Your task to perform on an android device: toggle javascript in the chrome app Image 0: 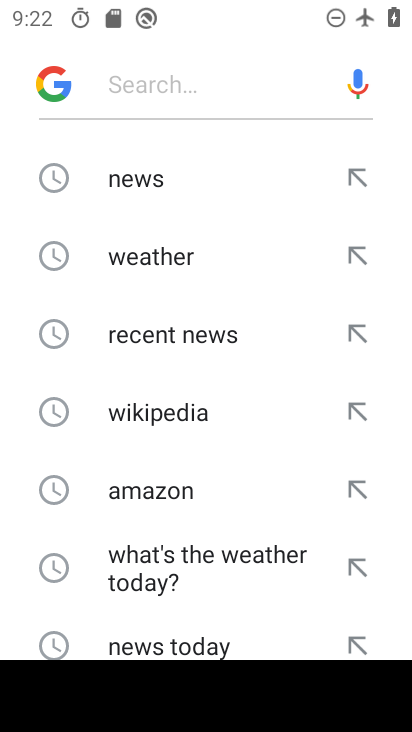
Step 0: press home button
Your task to perform on an android device: toggle javascript in the chrome app Image 1: 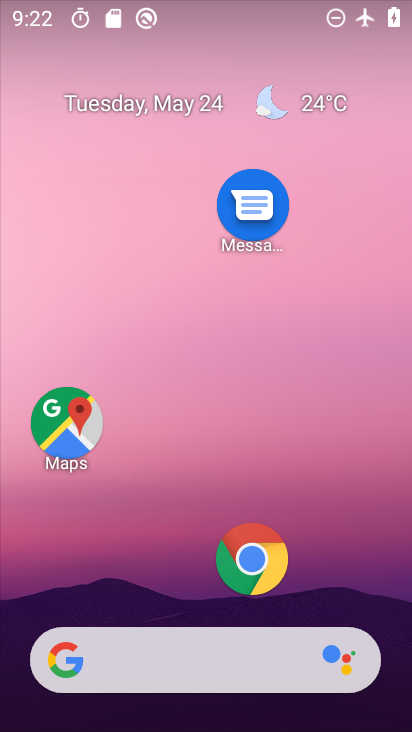
Step 1: click (265, 570)
Your task to perform on an android device: toggle javascript in the chrome app Image 2: 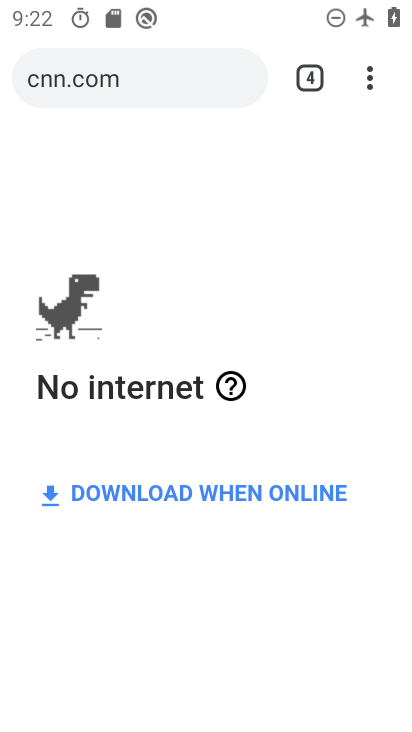
Step 2: drag from (372, 80) to (119, 630)
Your task to perform on an android device: toggle javascript in the chrome app Image 3: 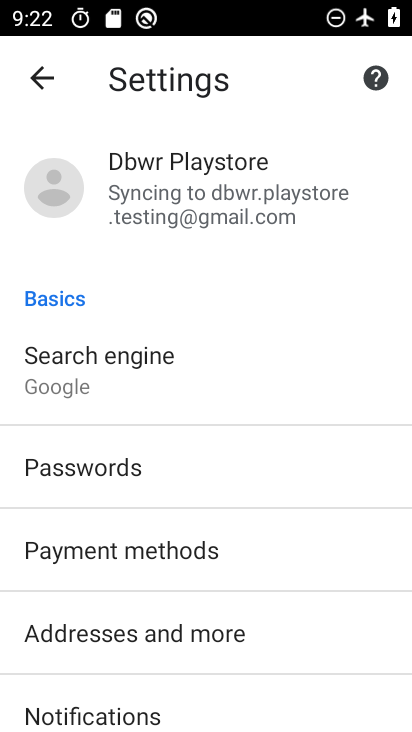
Step 3: drag from (176, 636) to (218, 410)
Your task to perform on an android device: toggle javascript in the chrome app Image 4: 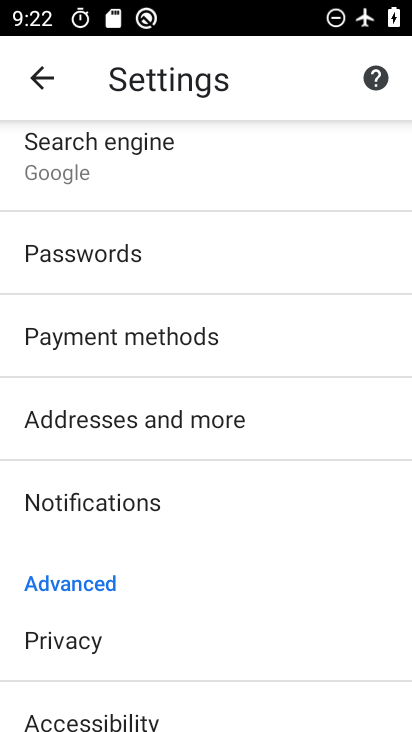
Step 4: drag from (193, 661) to (220, 409)
Your task to perform on an android device: toggle javascript in the chrome app Image 5: 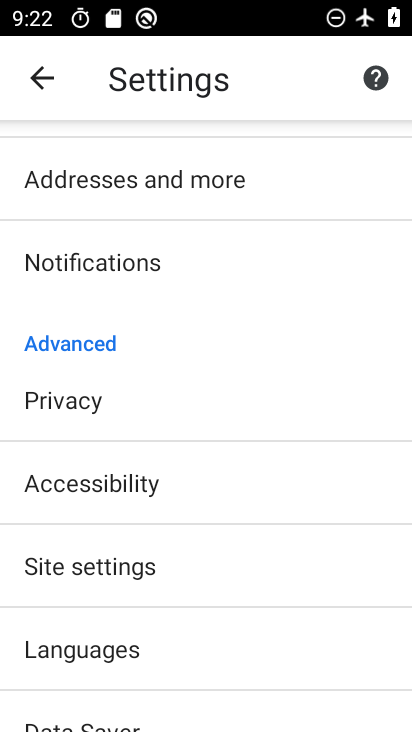
Step 5: drag from (188, 647) to (233, 442)
Your task to perform on an android device: toggle javascript in the chrome app Image 6: 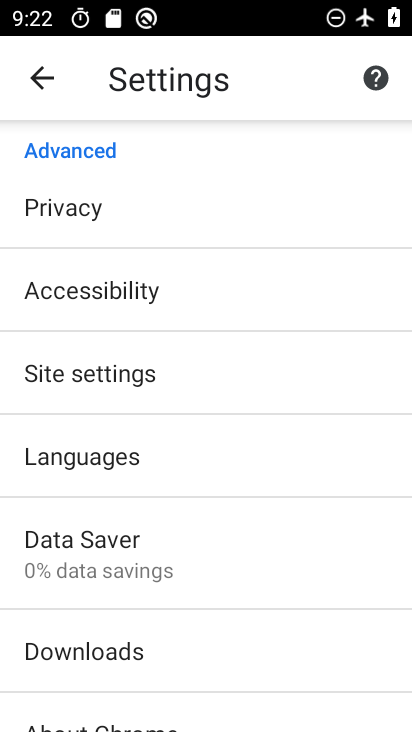
Step 6: click (189, 547)
Your task to perform on an android device: toggle javascript in the chrome app Image 7: 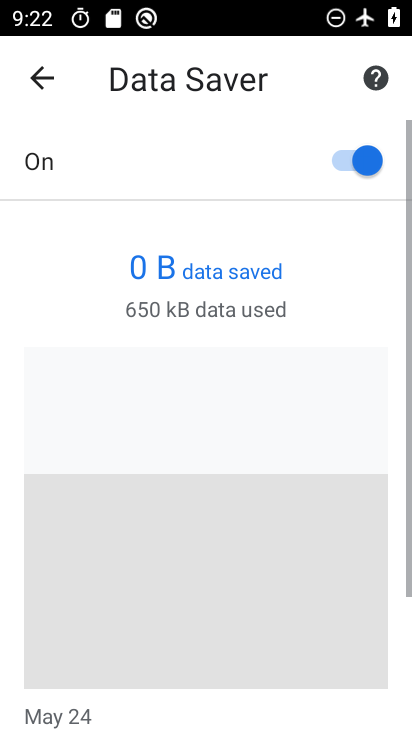
Step 7: press back button
Your task to perform on an android device: toggle javascript in the chrome app Image 8: 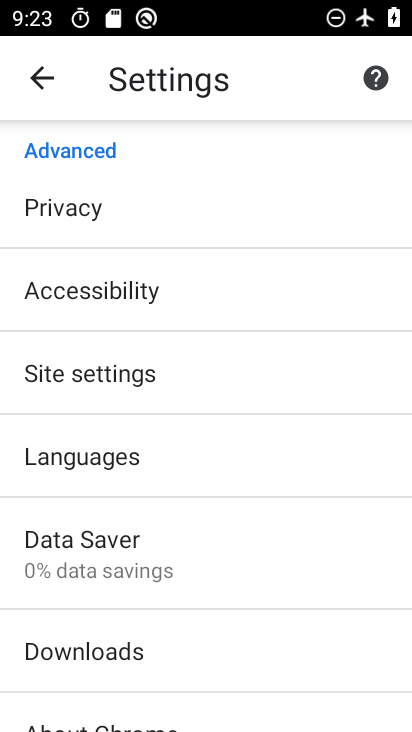
Step 8: click (141, 375)
Your task to perform on an android device: toggle javascript in the chrome app Image 9: 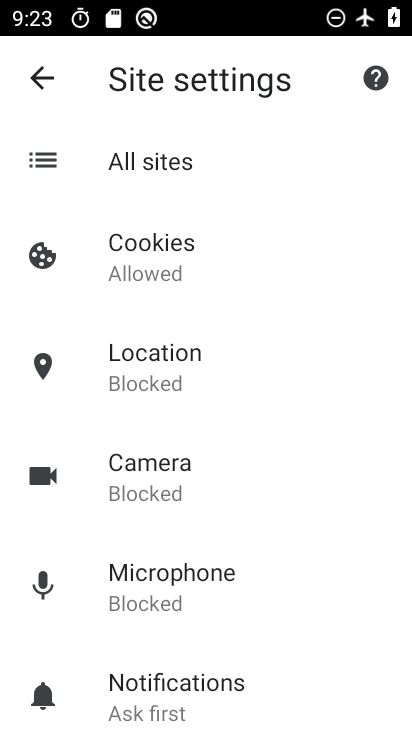
Step 9: drag from (182, 634) to (230, 393)
Your task to perform on an android device: toggle javascript in the chrome app Image 10: 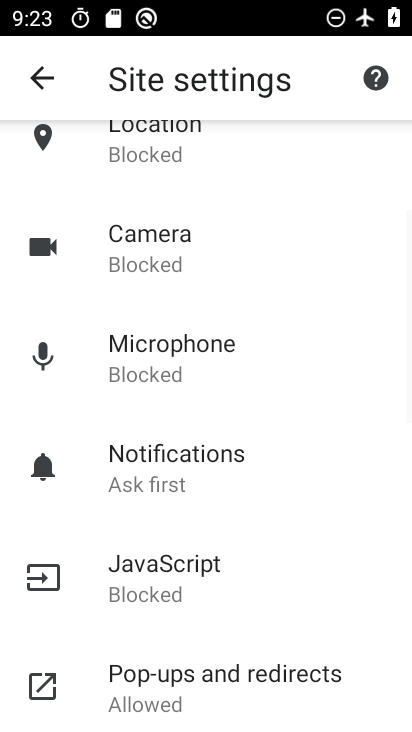
Step 10: click (214, 554)
Your task to perform on an android device: toggle javascript in the chrome app Image 11: 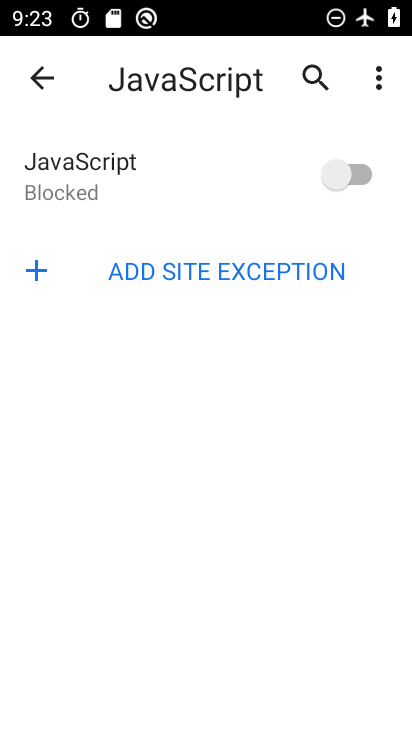
Step 11: click (358, 171)
Your task to perform on an android device: toggle javascript in the chrome app Image 12: 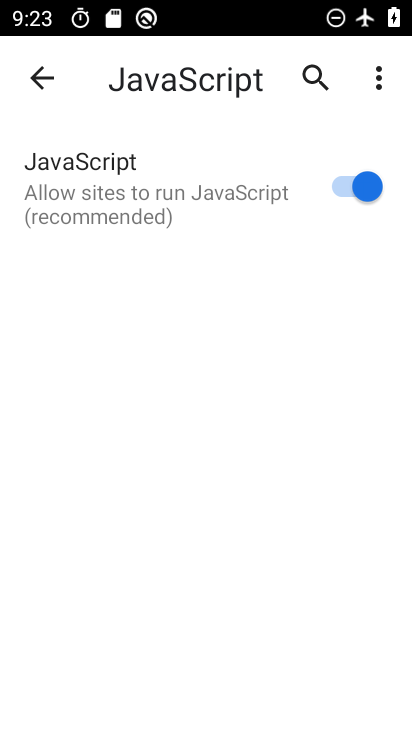
Step 12: task complete